Your task to perform on an android device: check data usage Image 0: 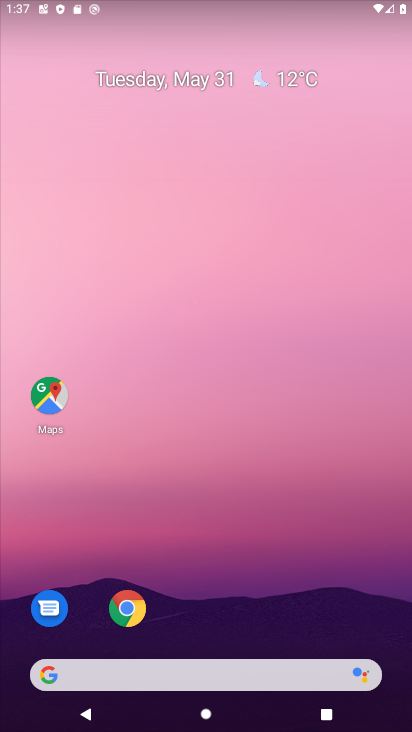
Step 0: drag from (291, 554) to (268, 153)
Your task to perform on an android device: check data usage Image 1: 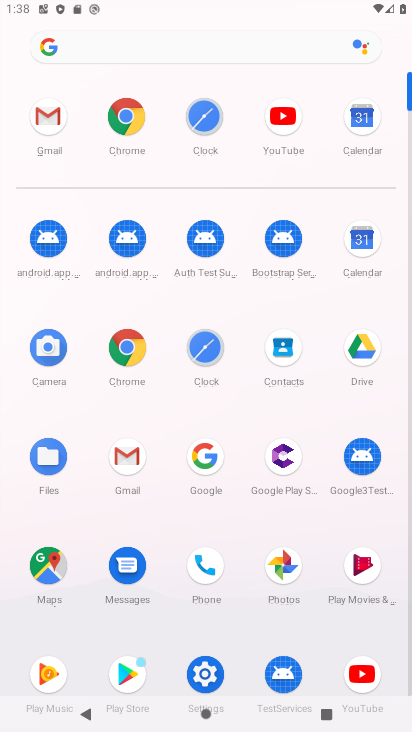
Step 1: click (227, 674)
Your task to perform on an android device: check data usage Image 2: 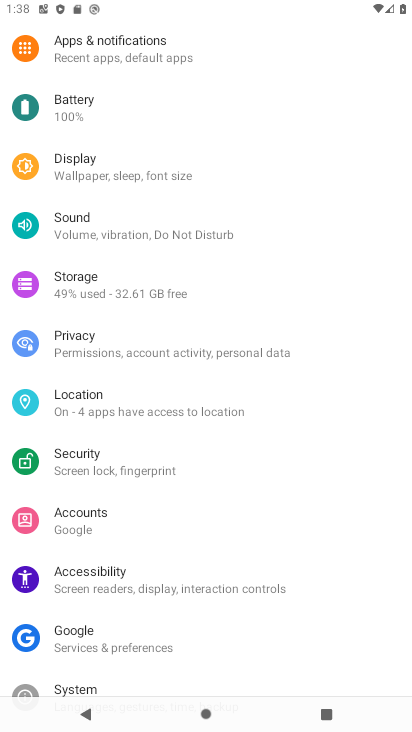
Step 2: drag from (127, 99) to (148, 587)
Your task to perform on an android device: check data usage Image 3: 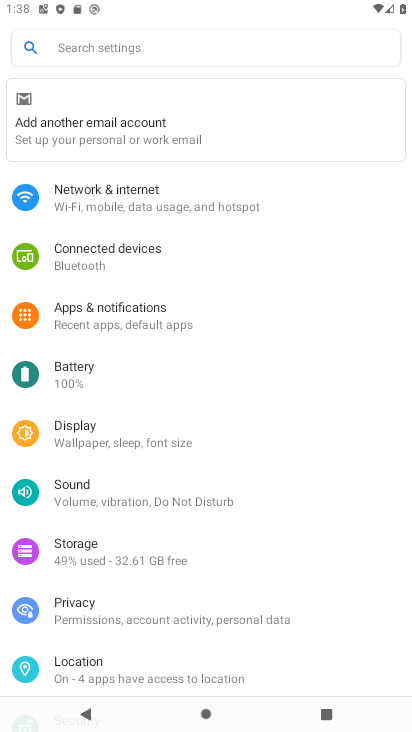
Step 3: click (143, 199)
Your task to perform on an android device: check data usage Image 4: 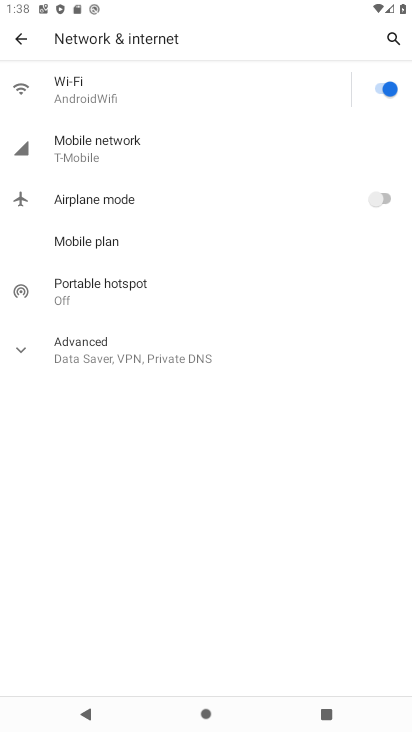
Step 4: click (149, 119)
Your task to perform on an android device: check data usage Image 5: 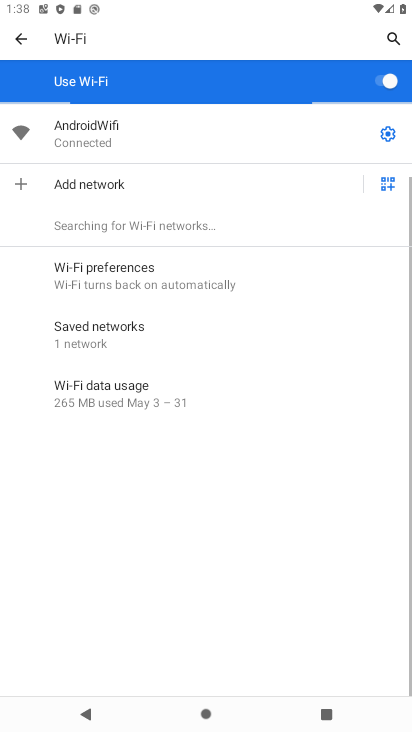
Step 5: click (4, 30)
Your task to perform on an android device: check data usage Image 6: 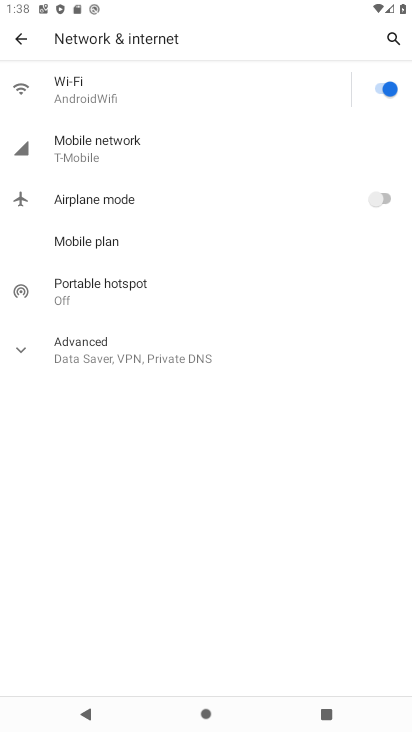
Step 6: click (131, 149)
Your task to perform on an android device: check data usage Image 7: 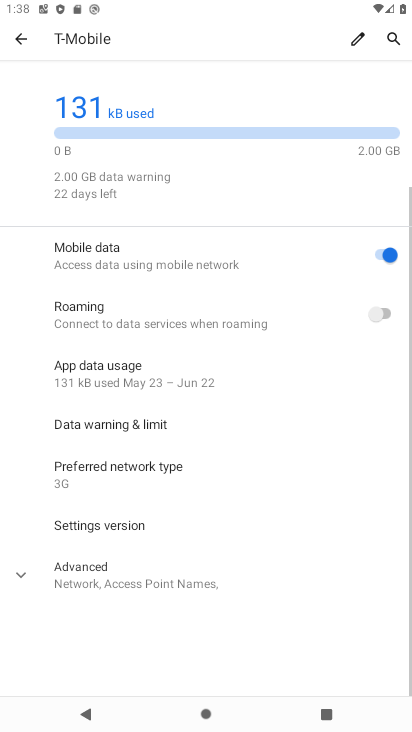
Step 7: task complete